Your task to perform on an android device: turn on the 24-hour format for clock Image 0: 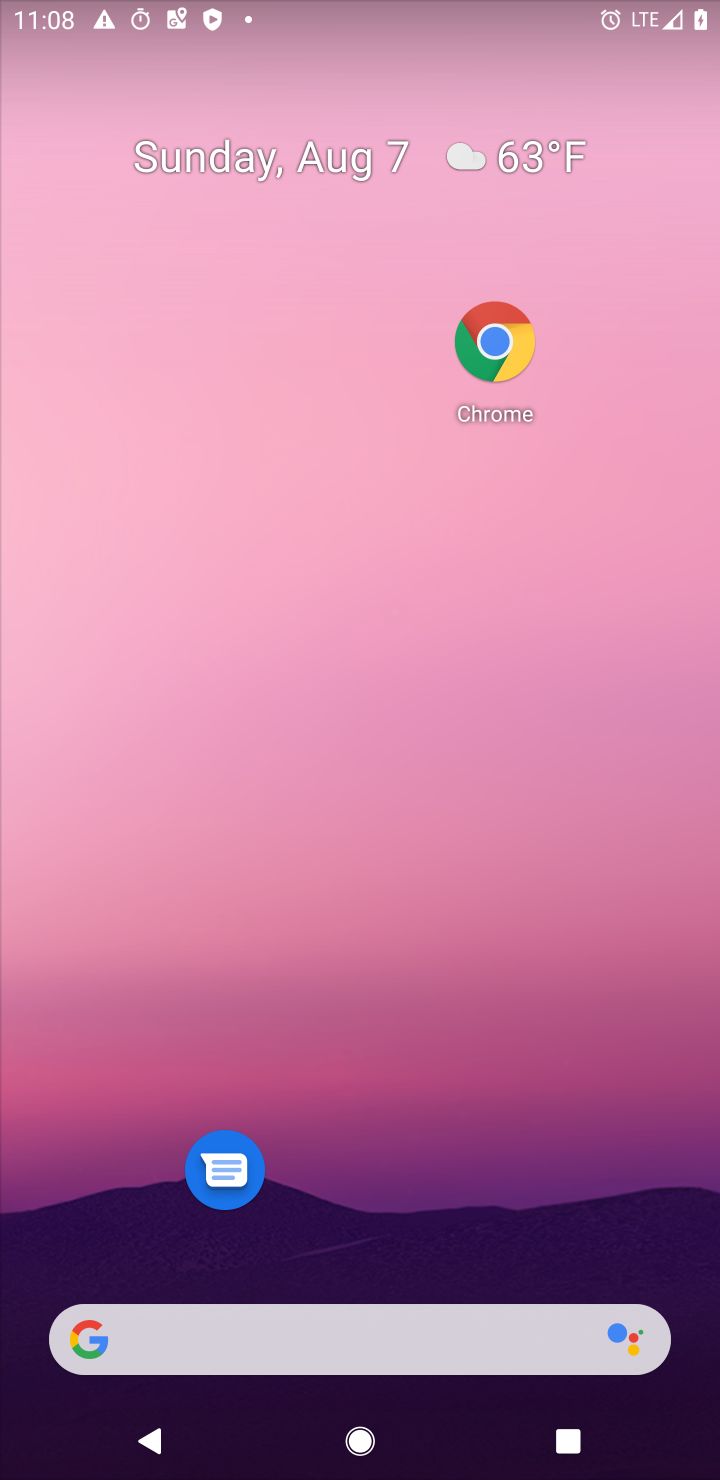
Step 0: drag from (367, 1348) to (292, 133)
Your task to perform on an android device: turn on the 24-hour format for clock Image 1: 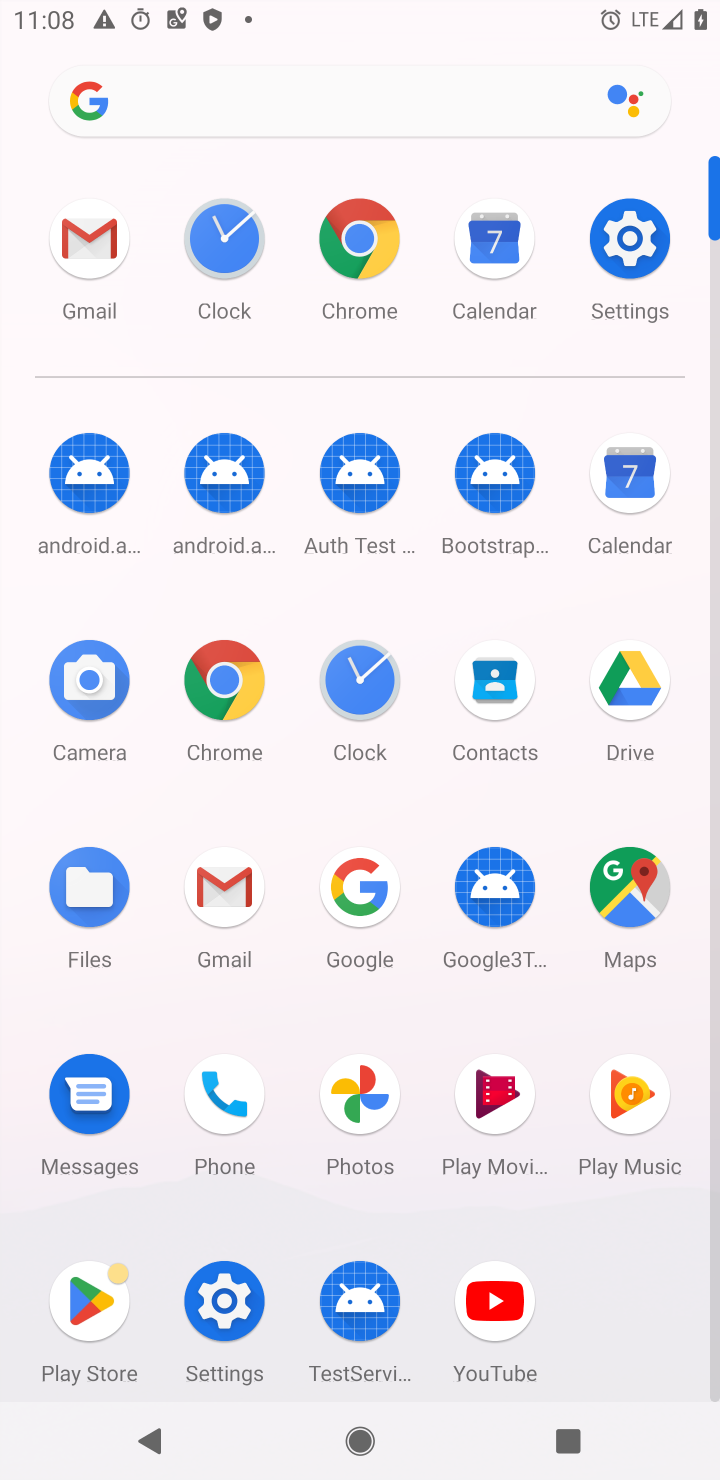
Step 1: click (358, 667)
Your task to perform on an android device: turn on the 24-hour format for clock Image 2: 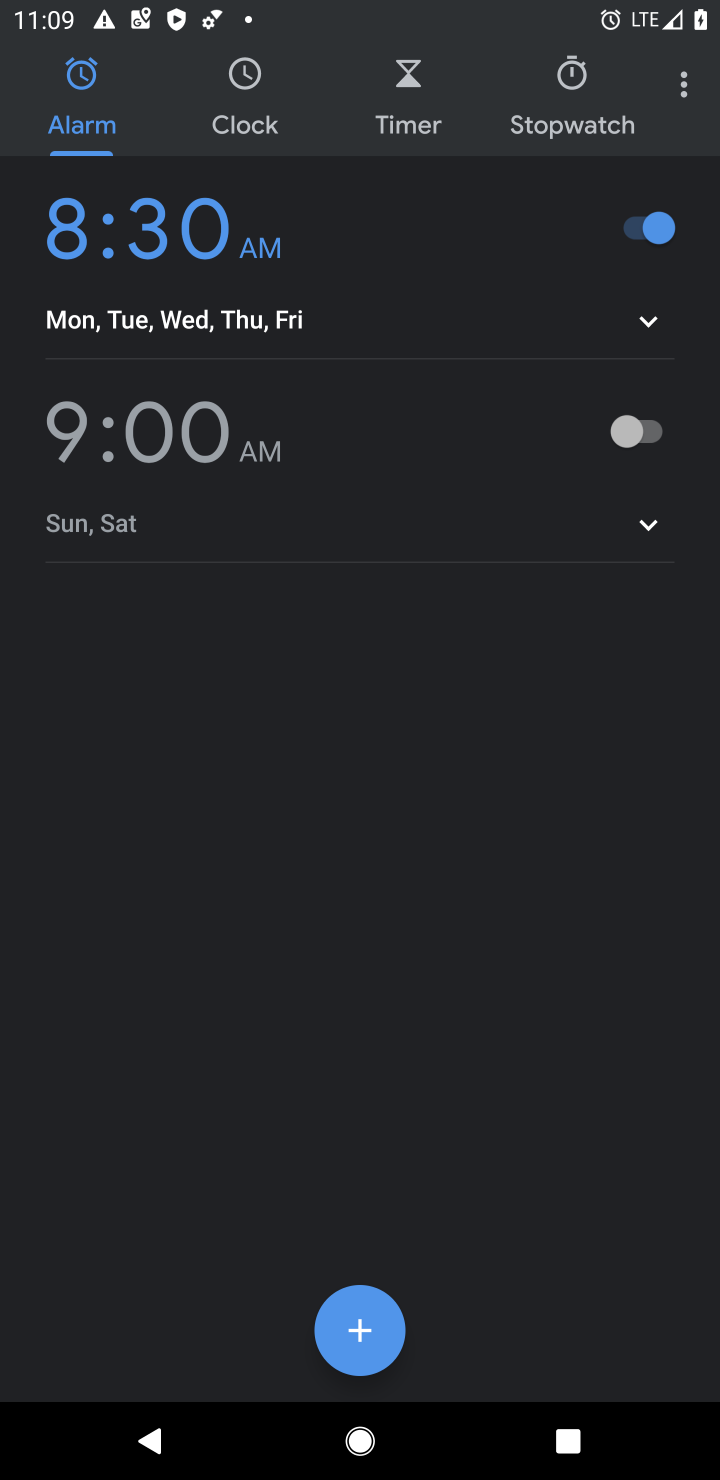
Step 2: click (682, 70)
Your task to perform on an android device: turn on the 24-hour format for clock Image 3: 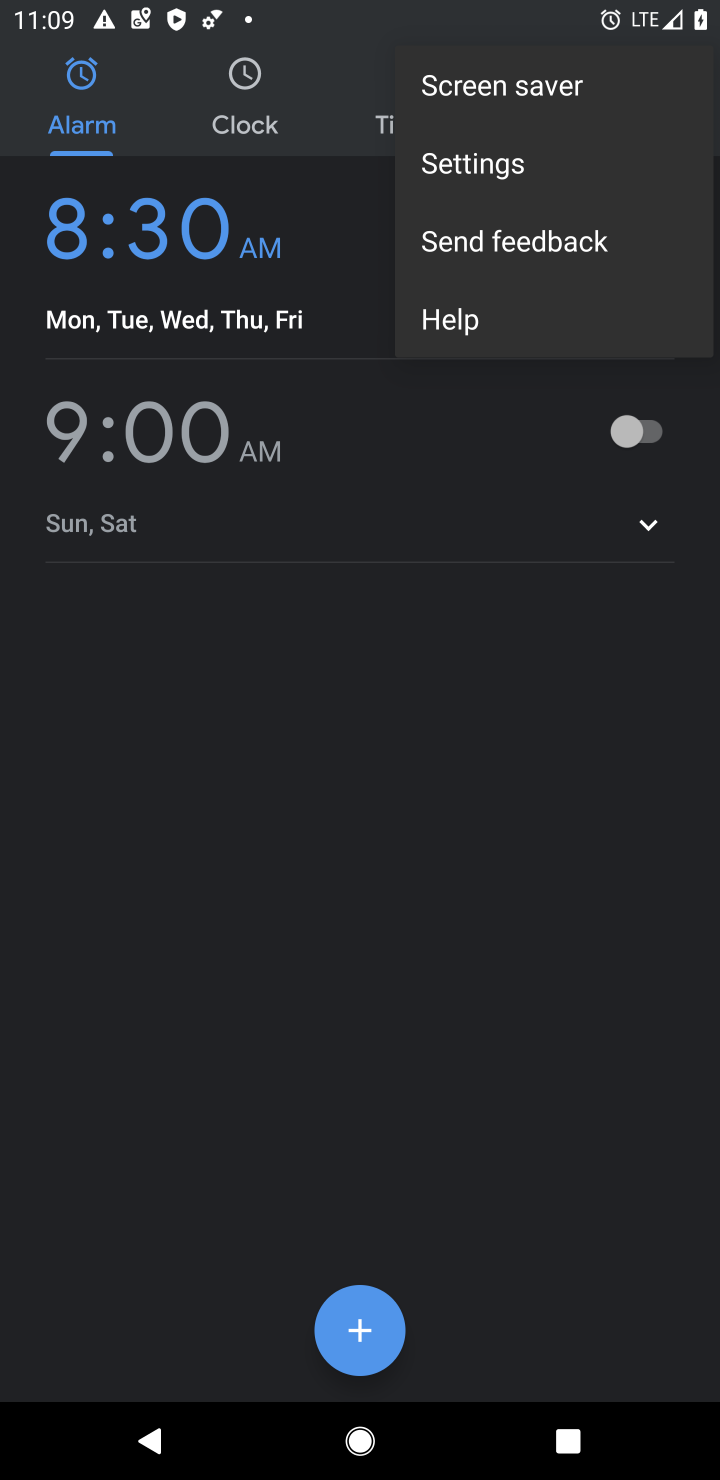
Step 3: click (548, 165)
Your task to perform on an android device: turn on the 24-hour format for clock Image 4: 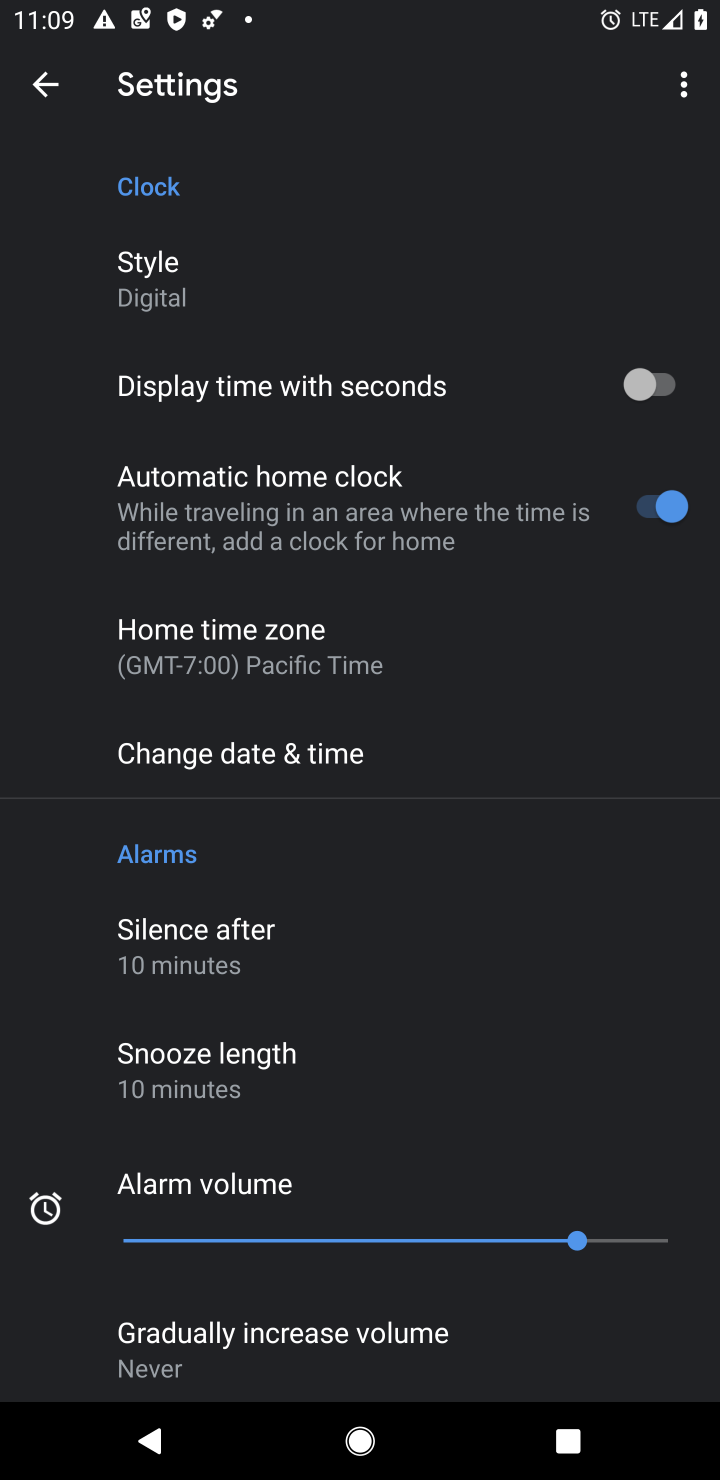
Step 4: click (391, 767)
Your task to perform on an android device: turn on the 24-hour format for clock Image 5: 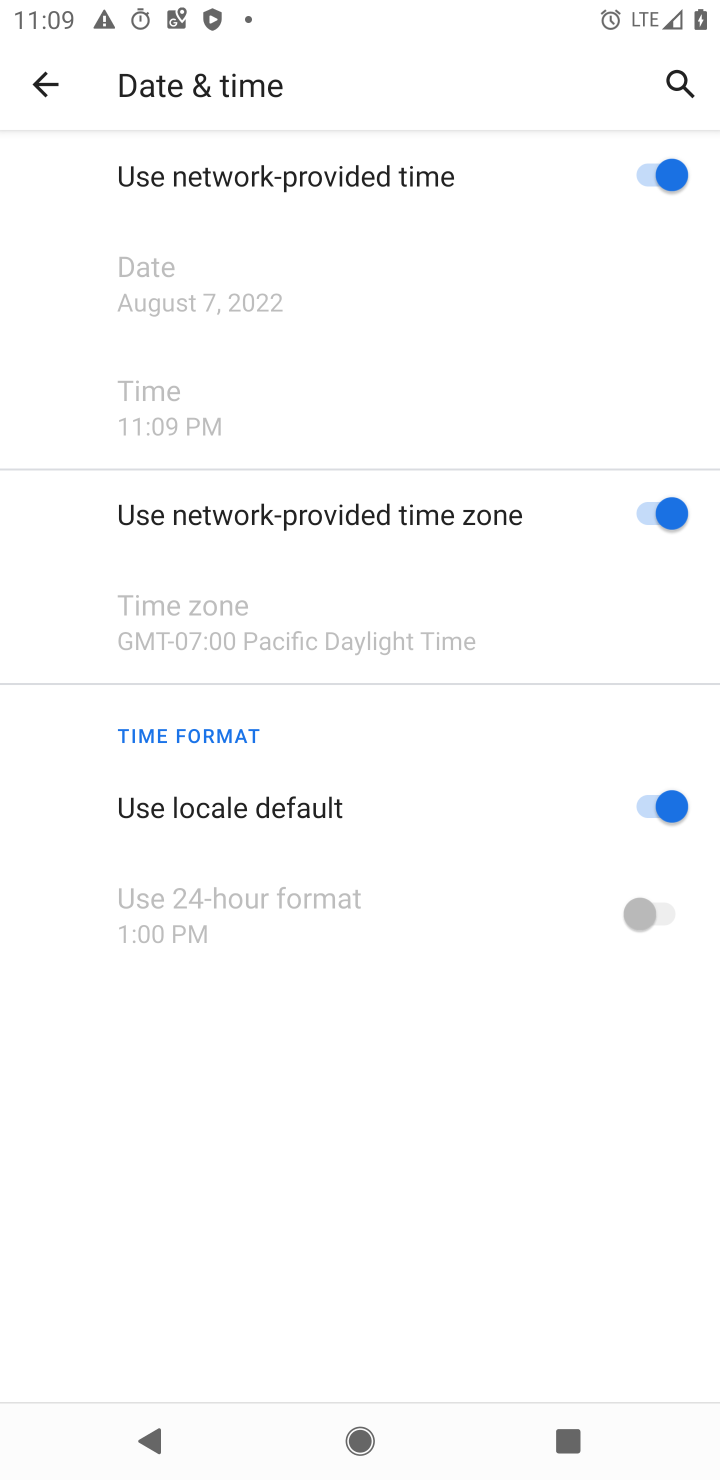
Step 5: click (636, 797)
Your task to perform on an android device: turn on the 24-hour format for clock Image 6: 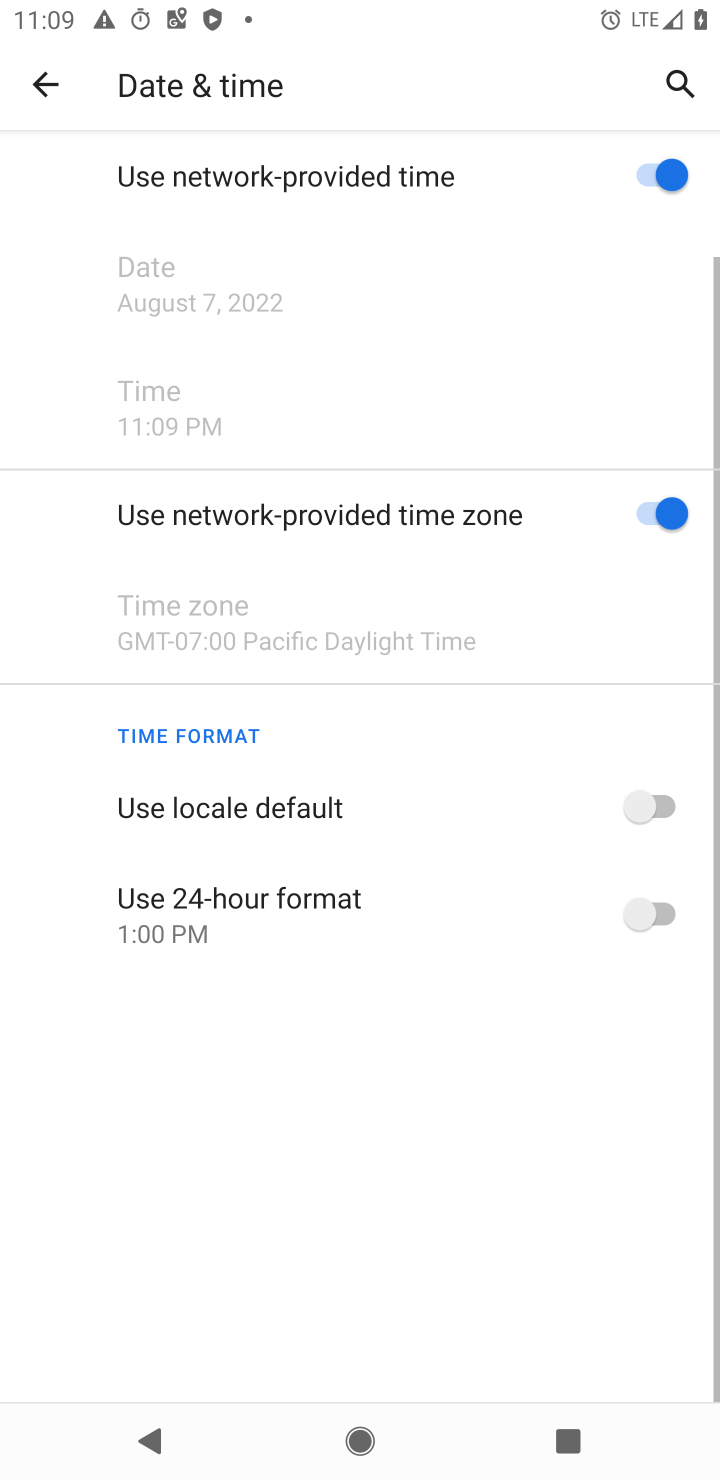
Step 6: click (666, 901)
Your task to perform on an android device: turn on the 24-hour format for clock Image 7: 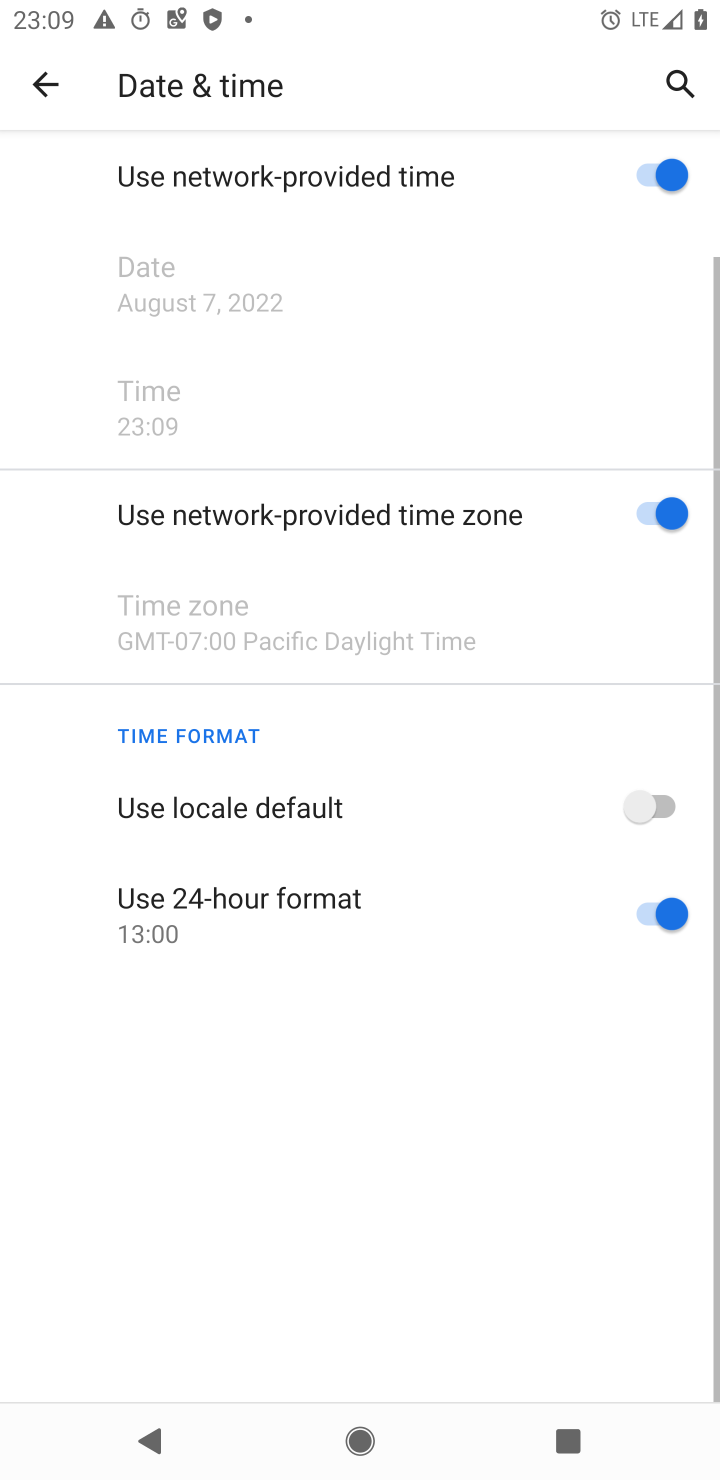
Step 7: task complete